Your task to perform on an android device: Open internet settings Image 0: 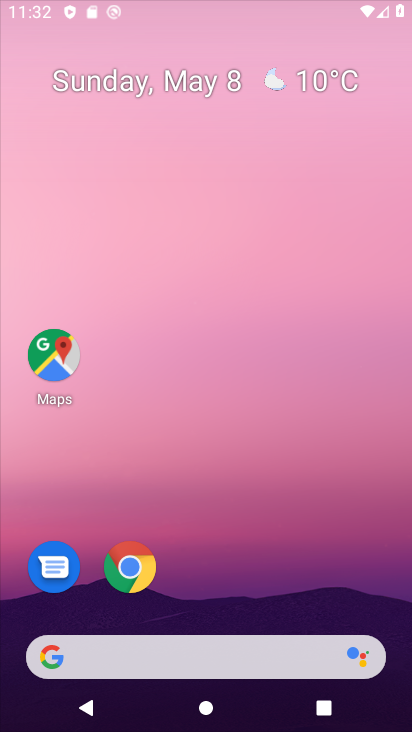
Step 0: drag from (214, 574) to (216, 110)
Your task to perform on an android device: Open internet settings Image 1: 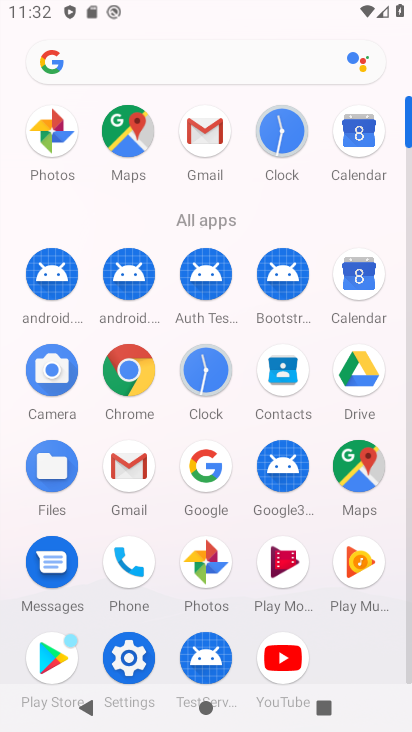
Step 1: click (118, 654)
Your task to perform on an android device: Open internet settings Image 2: 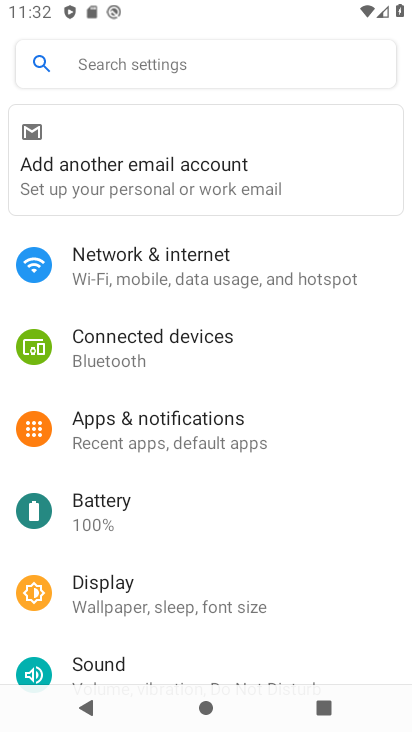
Step 2: click (182, 284)
Your task to perform on an android device: Open internet settings Image 3: 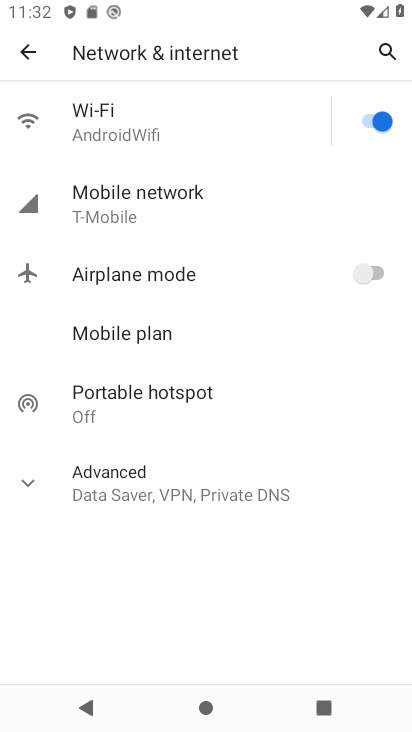
Step 3: task complete